Your task to perform on an android device: Open the map Image 0: 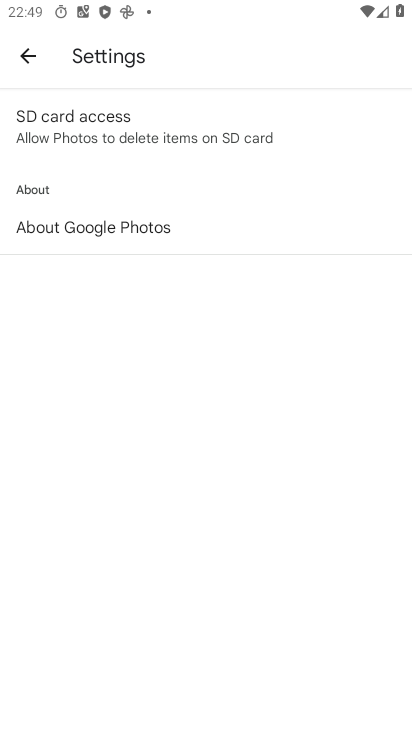
Step 0: press home button
Your task to perform on an android device: Open the map Image 1: 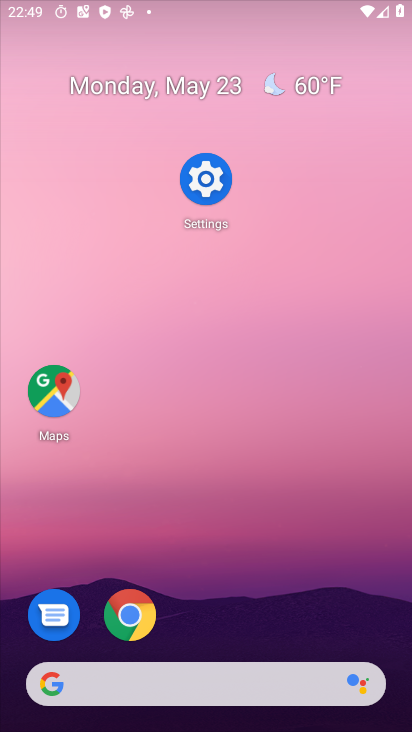
Step 1: click (272, 590)
Your task to perform on an android device: Open the map Image 2: 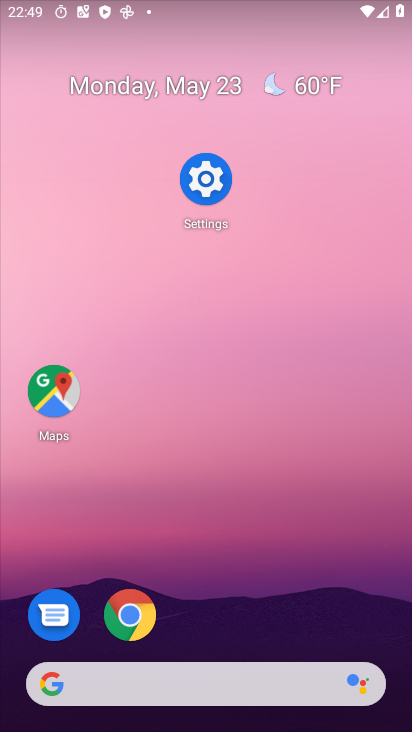
Step 2: click (58, 392)
Your task to perform on an android device: Open the map Image 3: 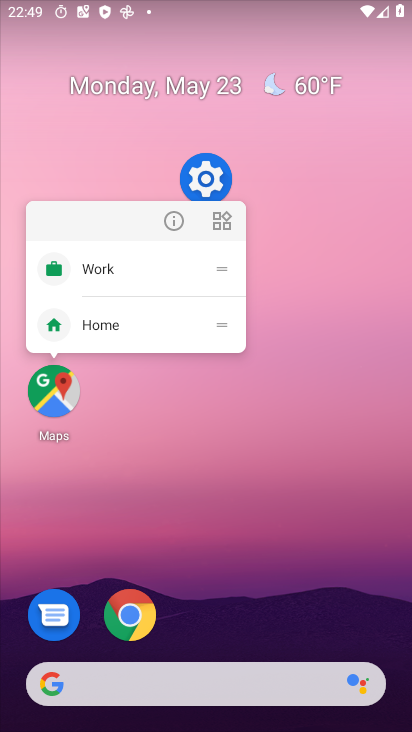
Step 3: click (59, 398)
Your task to perform on an android device: Open the map Image 4: 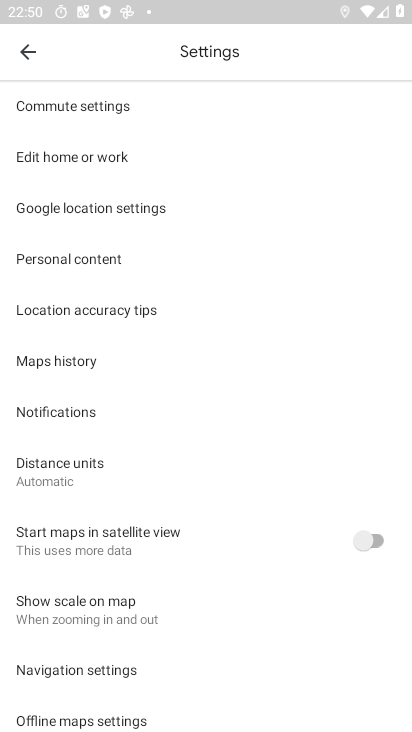
Step 4: task complete